Your task to perform on an android device: change the clock display to analog Image 0: 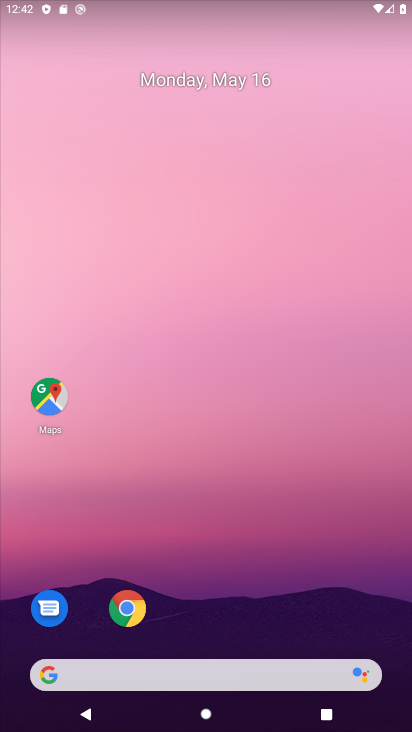
Step 0: drag from (212, 317) to (251, 54)
Your task to perform on an android device: change the clock display to analog Image 1: 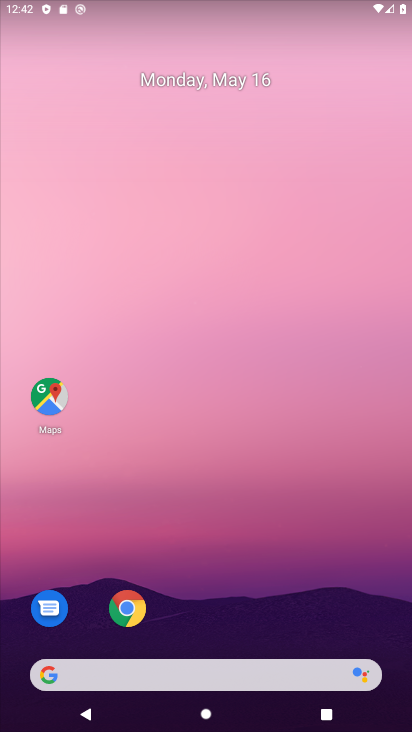
Step 1: drag from (188, 395) to (235, 18)
Your task to perform on an android device: change the clock display to analog Image 2: 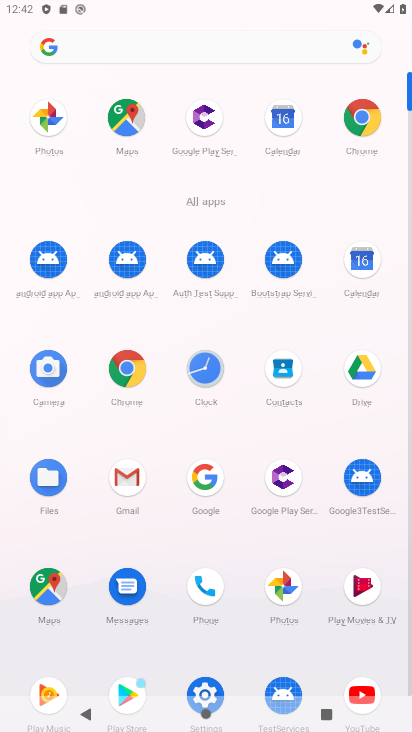
Step 2: click (203, 387)
Your task to perform on an android device: change the clock display to analog Image 3: 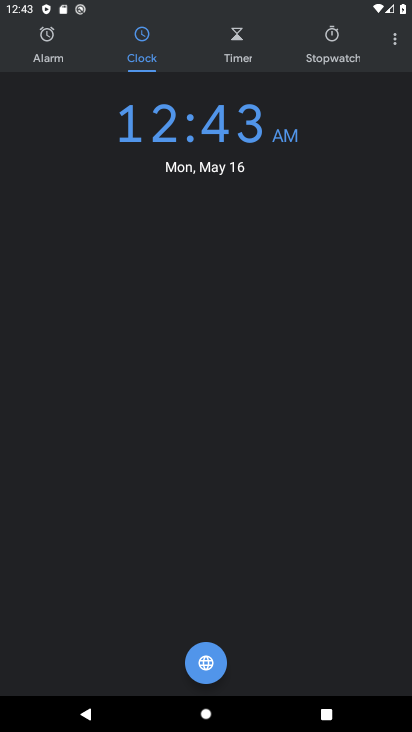
Step 3: click (394, 36)
Your task to perform on an android device: change the clock display to analog Image 4: 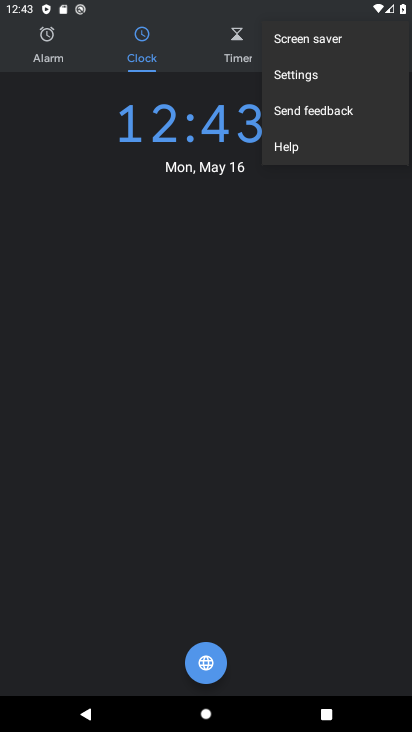
Step 4: click (321, 77)
Your task to perform on an android device: change the clock display to analog Image 5: 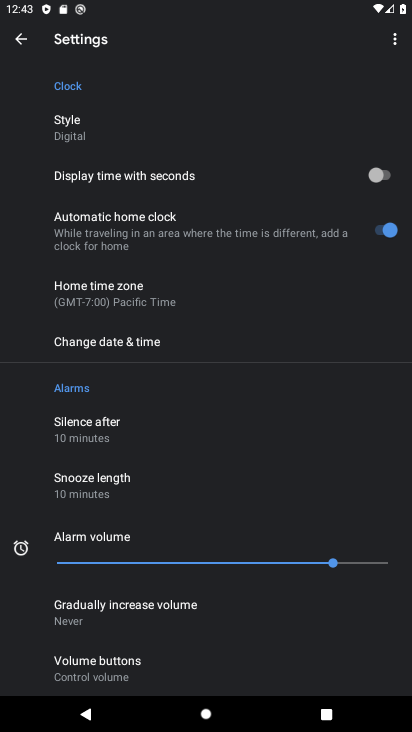
Step 5: click (91, 128)
Your task to perform on an android device: change the clock display to analog Image 6: 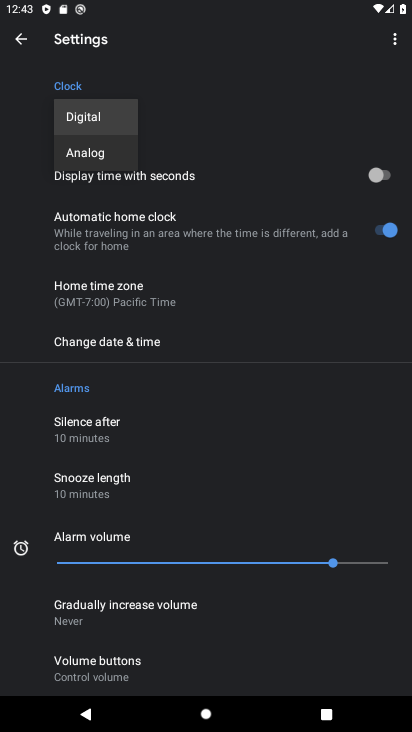
Step 6: click (89, 157)
Your task to perform on an android device: change the clock display to analog Image 7: 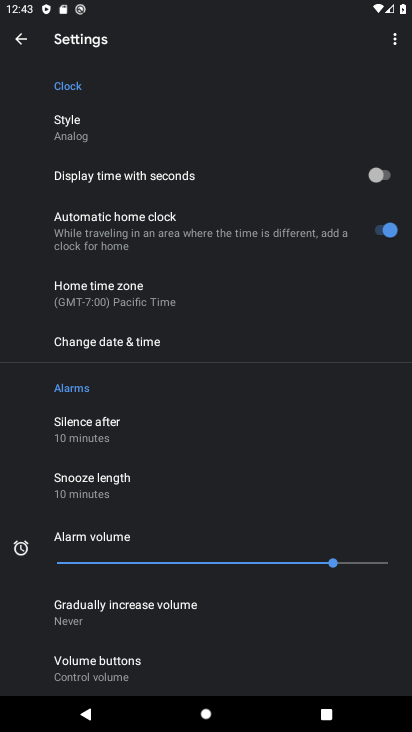
Step 7: task complete